Your task to perform on an android device: Open Wikipedia Image 0: 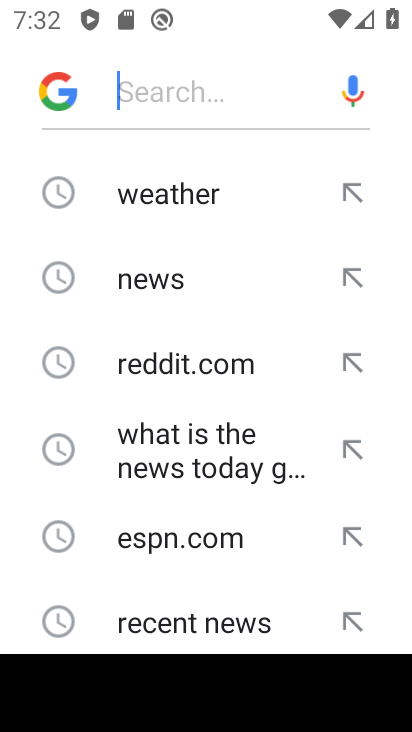
Step 0: press home button
Your task to perform on an android device: Open Wikipedia Image 1: 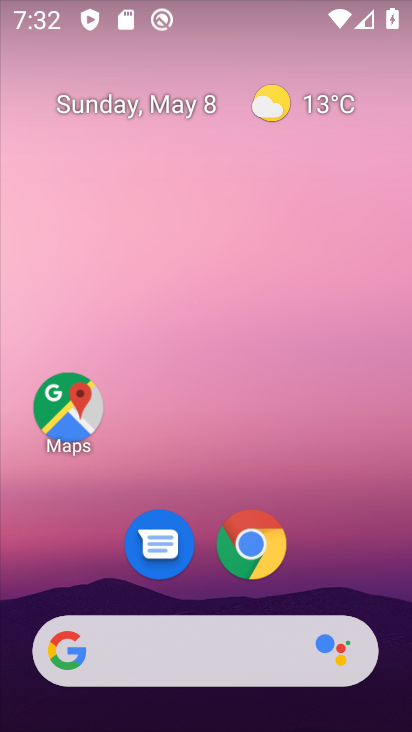
Step 1: click (250, 547)
Your task to perform on an android device: Open Wikipedia Image 2: 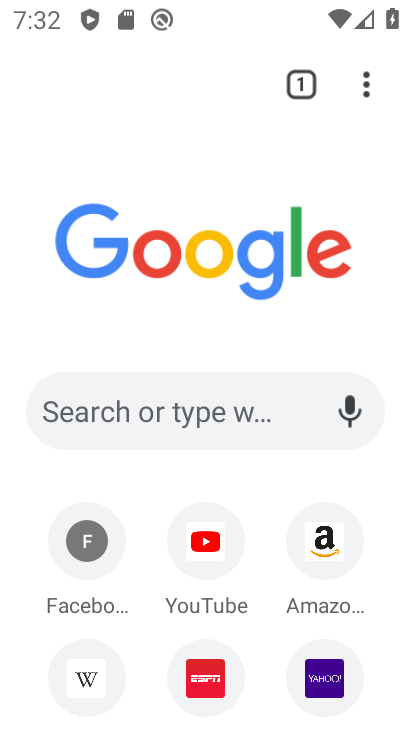
Step 2: click (73, 677)
Your task to perform on an android device: Open Wikipedia Image 3: 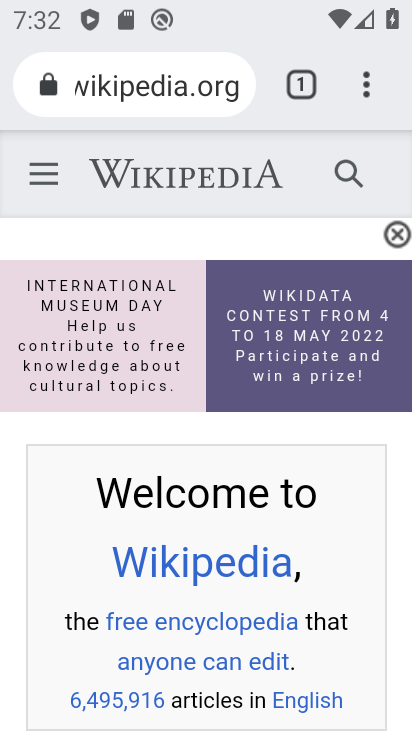
Step 3: task complete